Your task to perform on an android device: change notification settings in the gmail app Image 0: 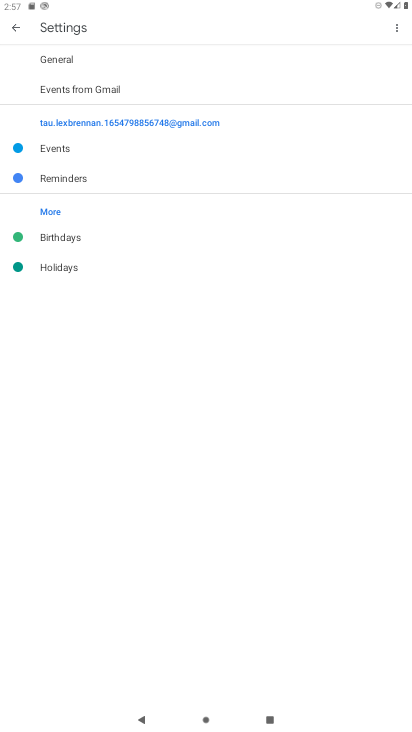
Step 0: press home button
Your task to perform on an android device: change notification settings in the gmail app Image 1: 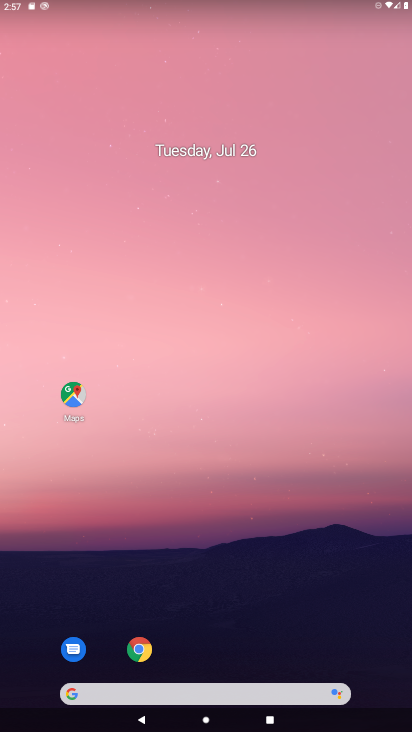
Step 1: drag from (220, 690) to (220, 106)
Your task to perform on an android device: change notification settings in the gmail app Image 2: 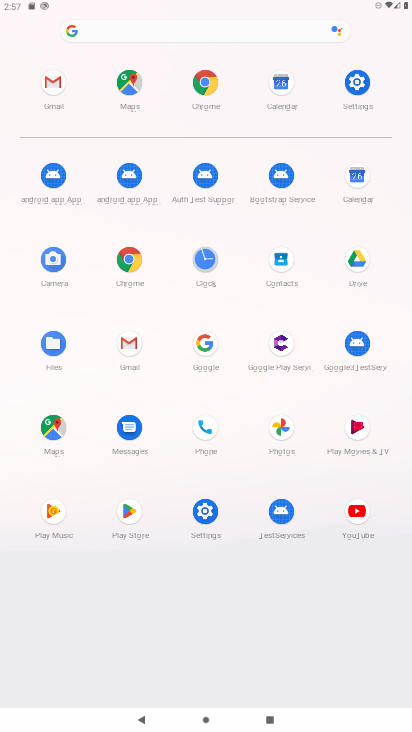
Step 2: click (128, 345)
Your task to perform on an android device: change notification settings in the gmail app Image 3: 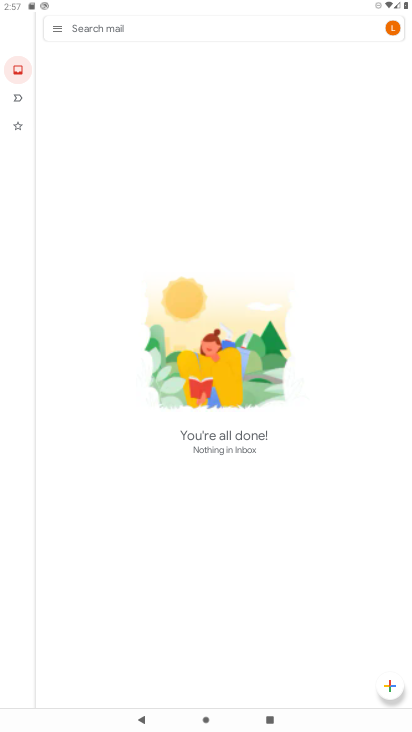
Step 3: click (56, 26)
Your task to perform on an android device: change notification settings in the gmail app Image 4: 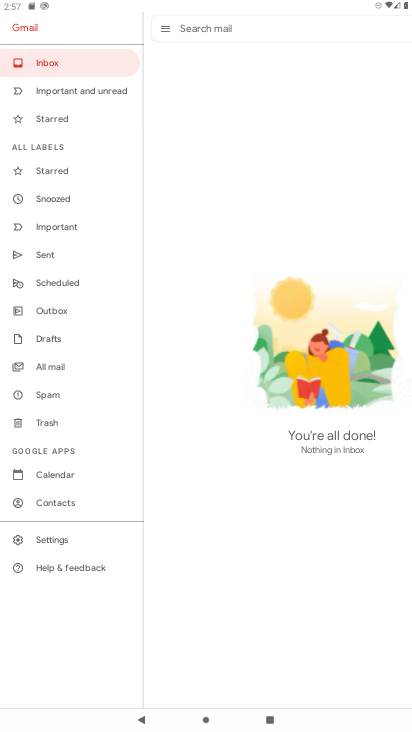
Step 4: click (66, 538)
Your task to perform on an android device: change notification settings in the gmail app Image 5: 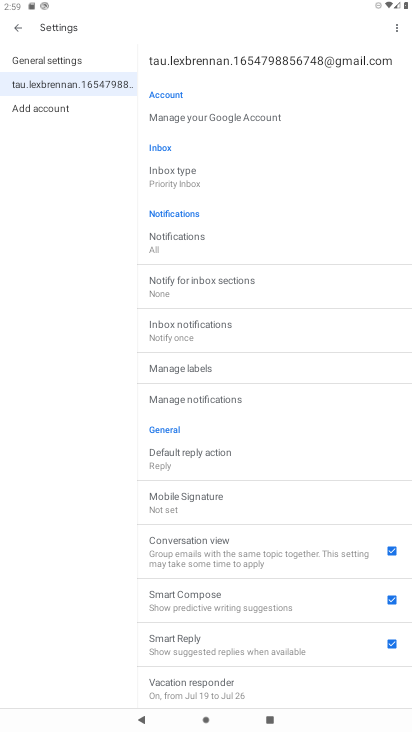
Step 5: click (206, 406)
Your task to perform on an android device: change notification settings in the gmail app Image 6: 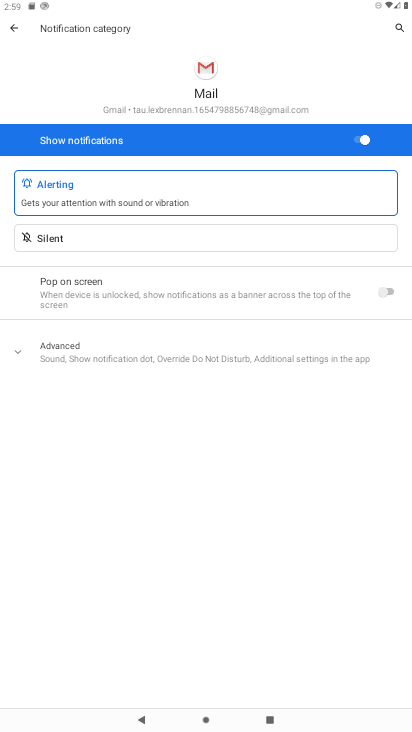
Step 6: click (234, 242)
Your task to perform on an android device: change notification settings in the gmail app Image 7: 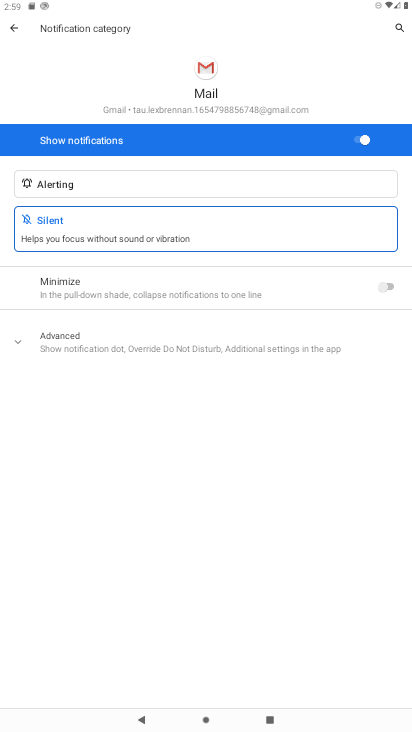
Step 7: task complete